Your task to perform on an android device: Go to privacy settings Image 0: 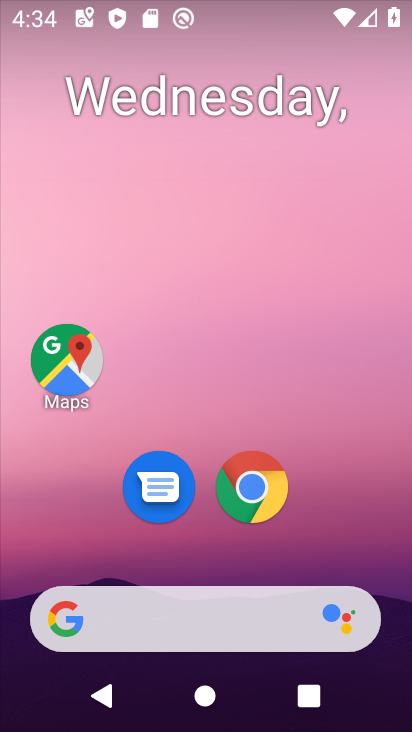
Step 0: drag from (210, 563) to (225, 28)
Your task to perform on an android device: Go to privacy settings Image 1: 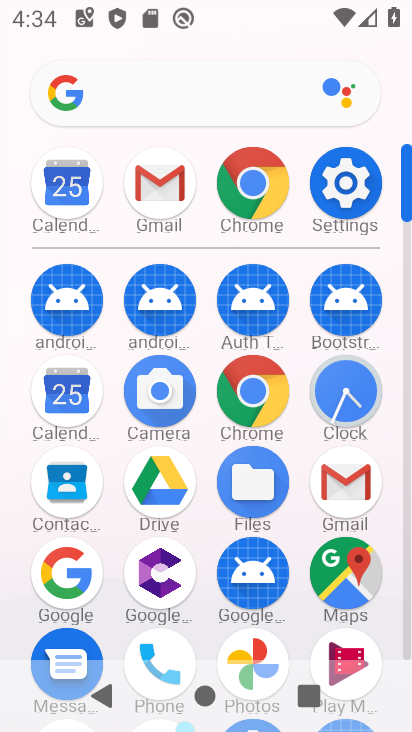
Step 1: click (349, 178)
Your task to perform on an android device: Go to privacy settings Image 2: 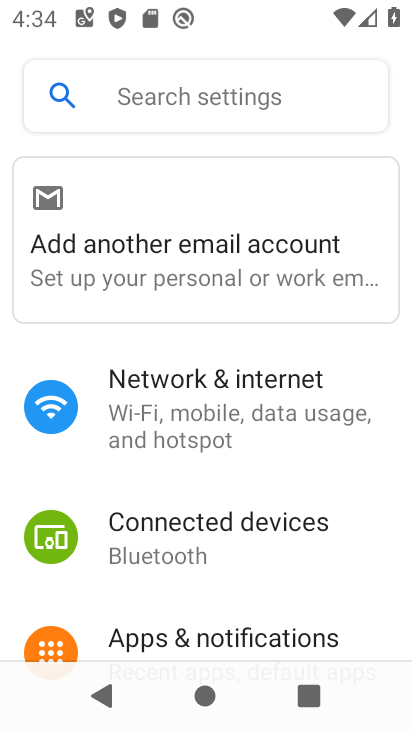
Step 2: drag from (238, 563) to (268, 24)
Your task to perform on an android device: Go to privacy settings Image 3: 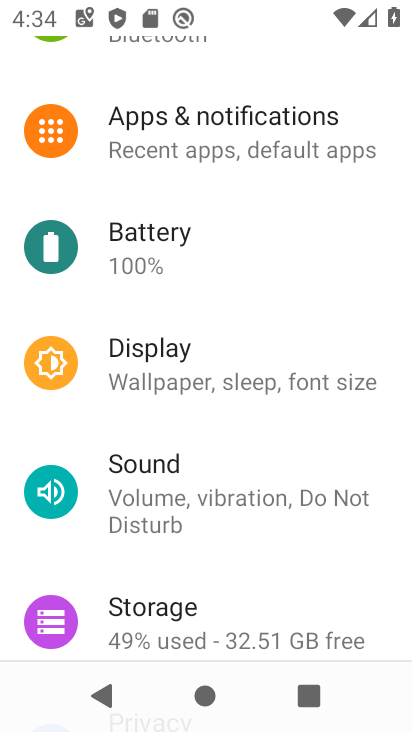
Step 3: drag from (193, 626) to (231, 122)
Your task to perform on an android device: Go to privacy settings Image 4: 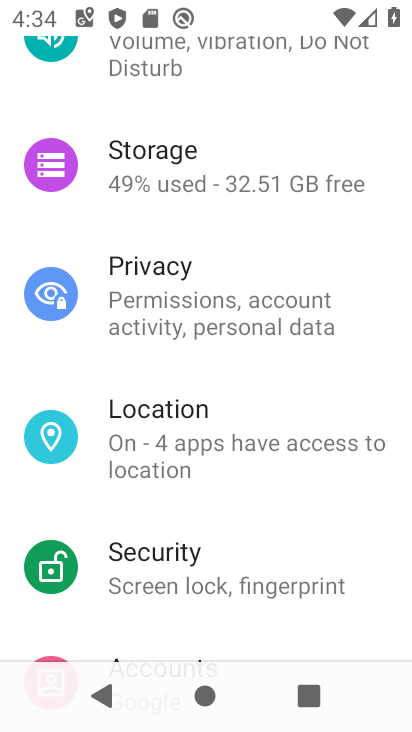
Step 4: click (201, 302)
Your task to perform on an android device: Go to privacy settings Image 5: 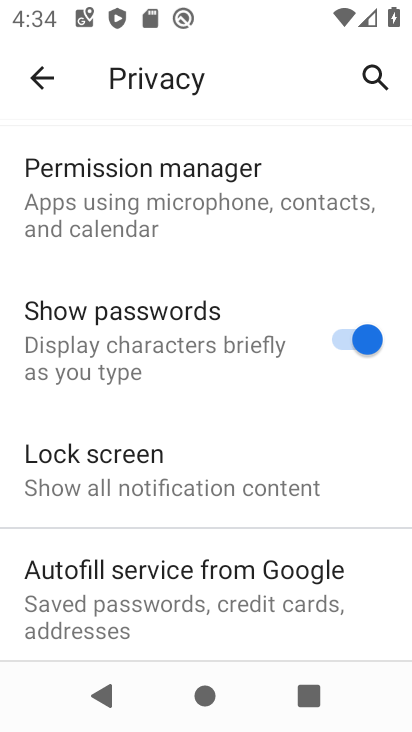
Step 5: drag from (221, 634) to (243, 54)
Your task to perform on an android device: Go to privacy settings Image 6: 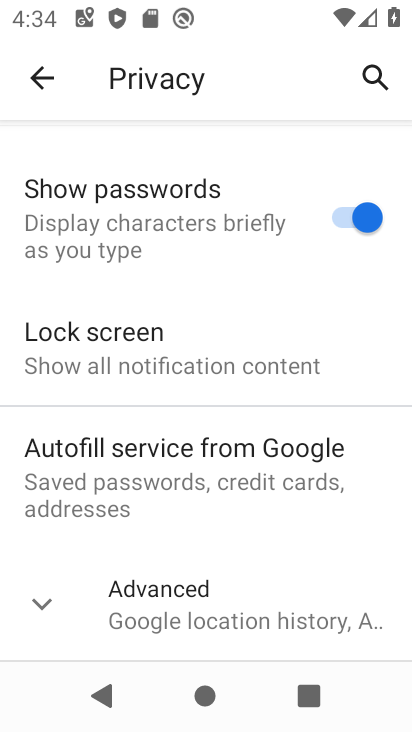
Step 6: click (48, 587)
Your task to perform on an android device: Go to privacy settings Image 7: 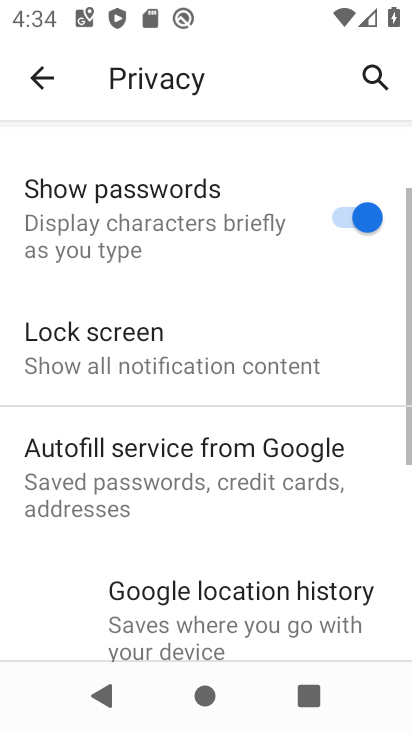
Step 7: click (246, 141)
Your task to perform on an android device: Go to privacy settings Image 8: 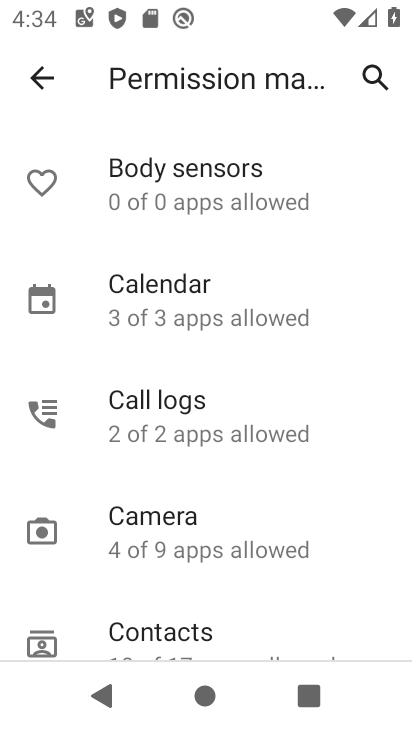
Step 8: task complete